Your task to perform on an android device: Open Chrome and go to the settings page Image 0: 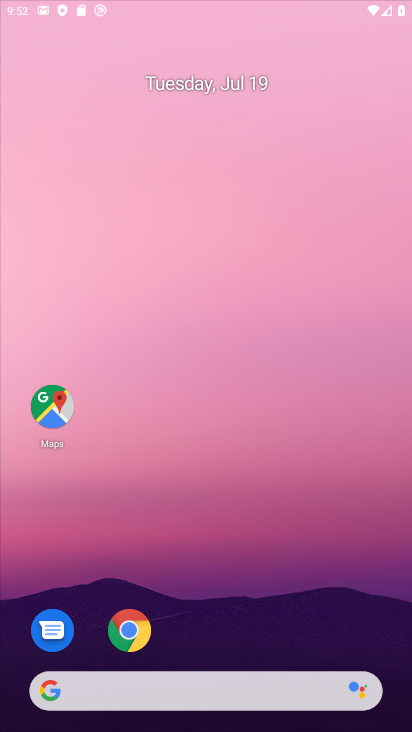
Step 0: drag from (282, 339) to (270, 137)
Your task to perform on an android device: Open Chrome and go to the settings page Image 1: 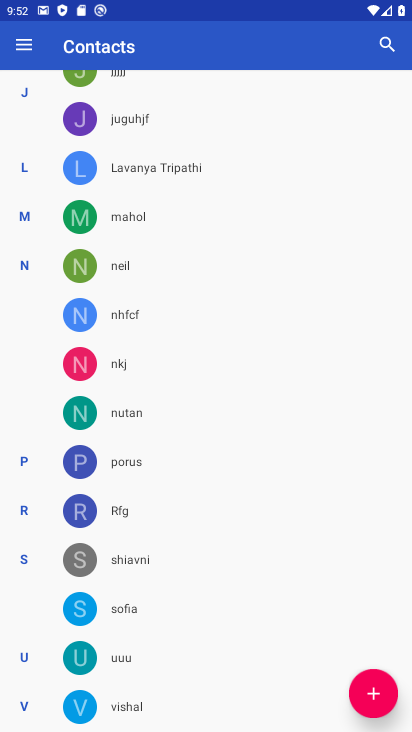
Step 1: press home button
Your task to perform on an android device: Open Chrome and go to the settings page Image 2: 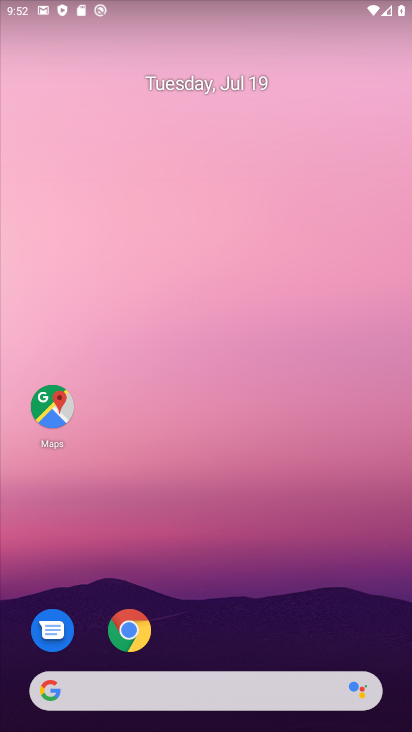
Step 2: drag from (254, 625) to (253, 111)
Your task to perform on an android device: Open Chrome and go to the settings page Image 3: 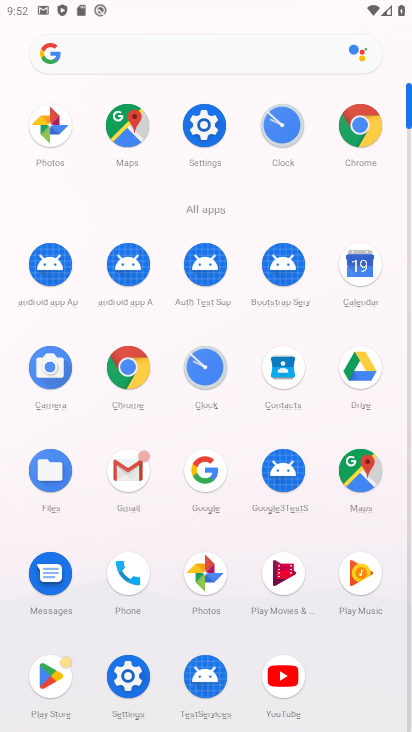
Step 3: click (372, 114)
Your task to perform on an android device: Open Chrome and go to the settings page Image 4: 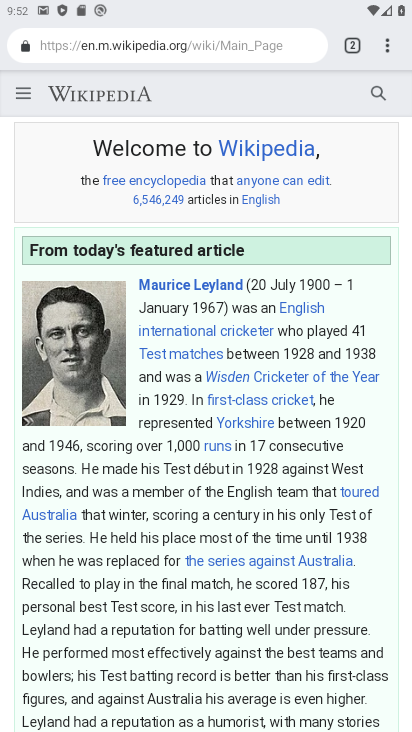
Step 4: click (389, 41)
Your task to perform on an android device: Open Chrome and go to the settings page Image 5: 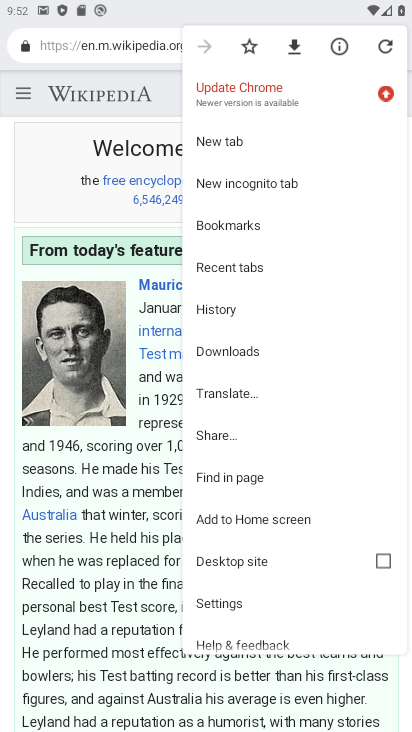
Step 5: click (258, 602)
Your task to perform on an android device: Open Chrome and go to the settings page Image 6: 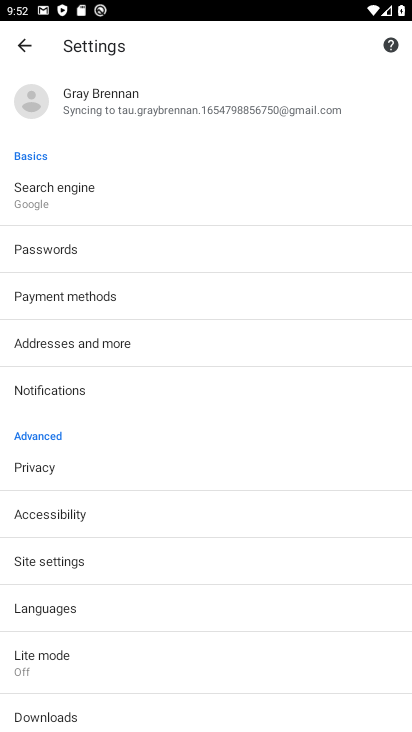
Step 6: task complete